Your task to perform on an android device: turn on improve location accuracy Image 0: 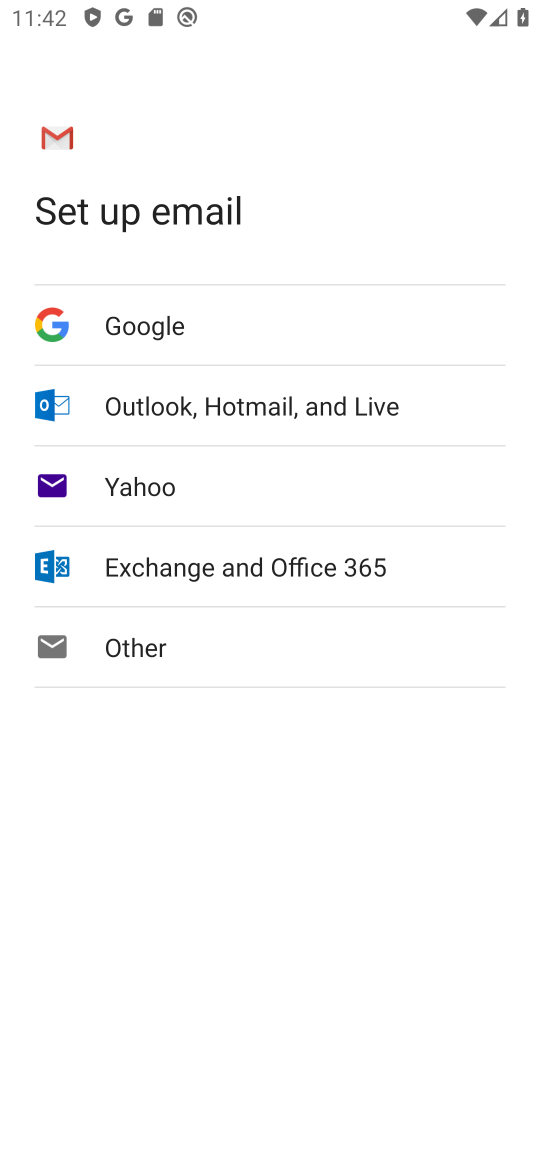
Step 0: press home button
Your task to perform on an android device: turn on improve location accuracy Image 1: 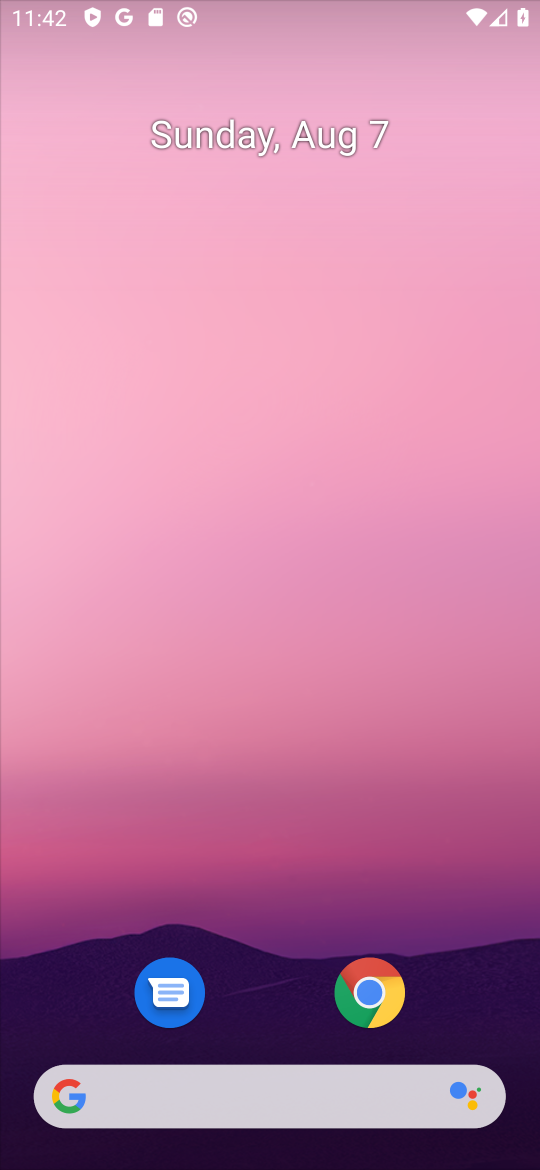
Step 1: drag from (274, 1006) to (202, 125)
Your task to perform on an android device: turn on improve location accuracy Image 2: 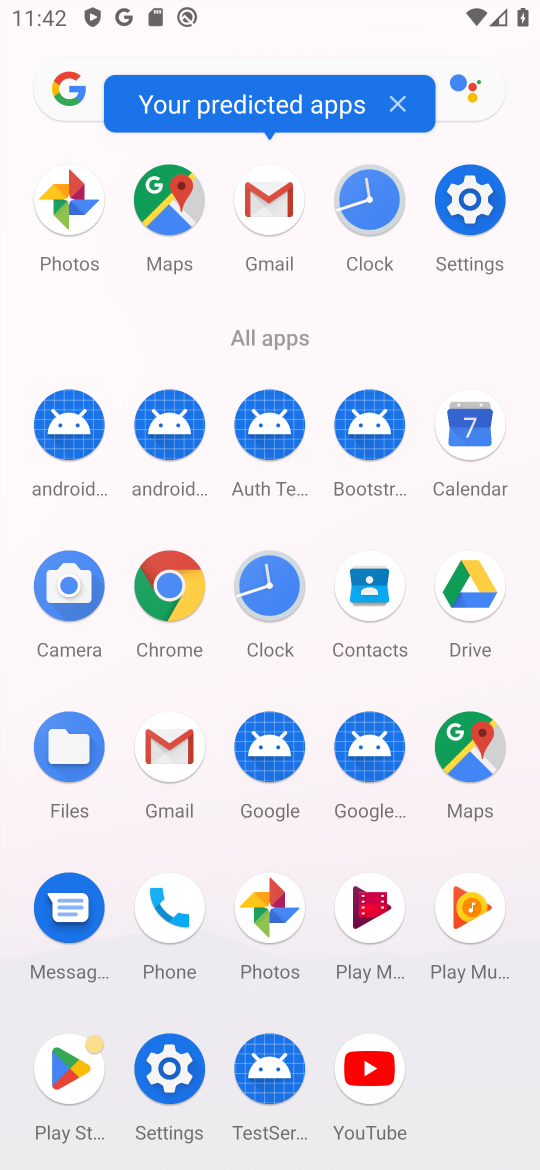
Step 2: click (468, 223)
Your task to perform on an android device: turn on improve location accuracy Image 3: 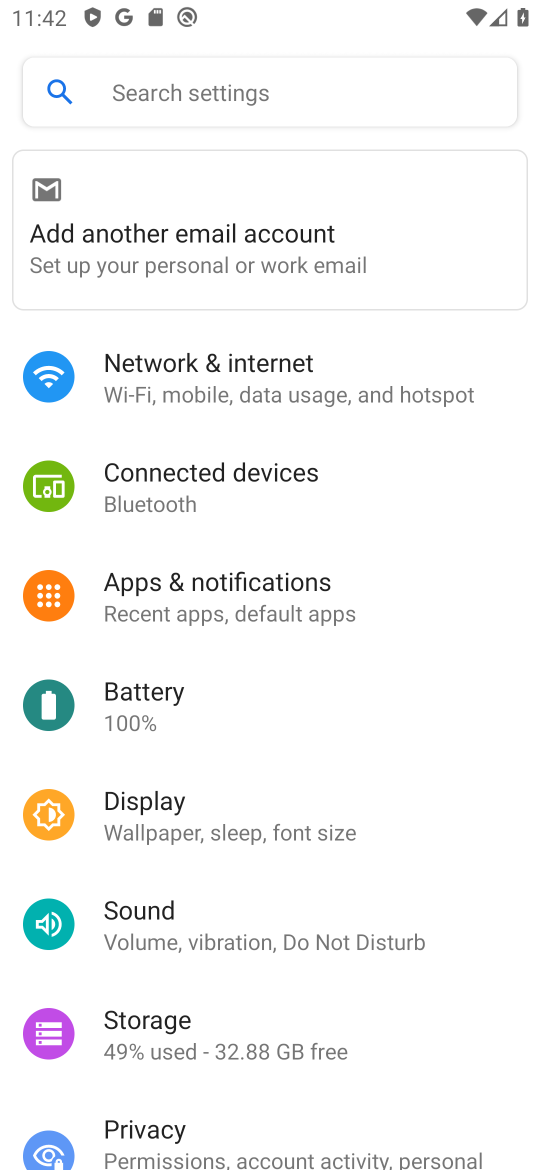
Step 3: drag from (359, 1064) to (474, 433)
Your task to perform on an android device: turn on improve location accuracy Image 4: 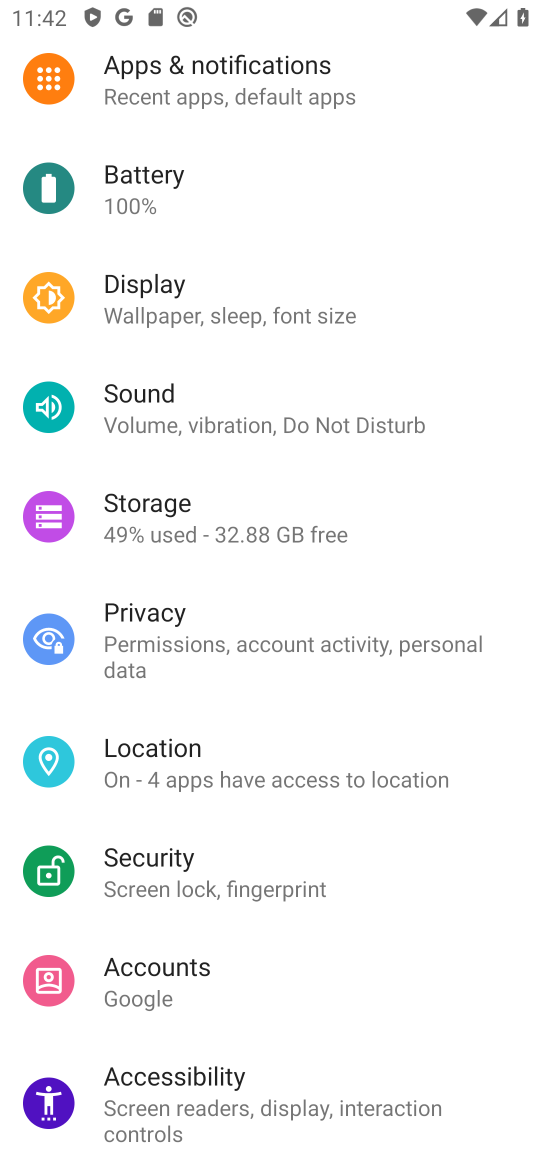
Step 4: click (185, 764)
Your task to perform on an android device: turn on improve location accuracy Image 5: 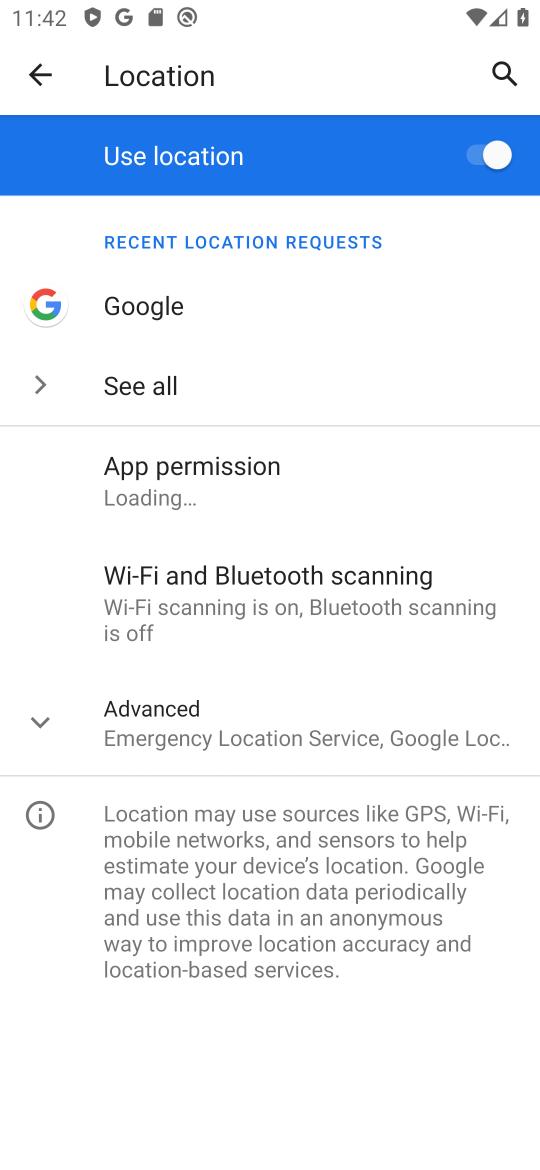
Step 5: click (203, 717)
Your task to perform on an android device: turn on improve location accuracy Image 6: 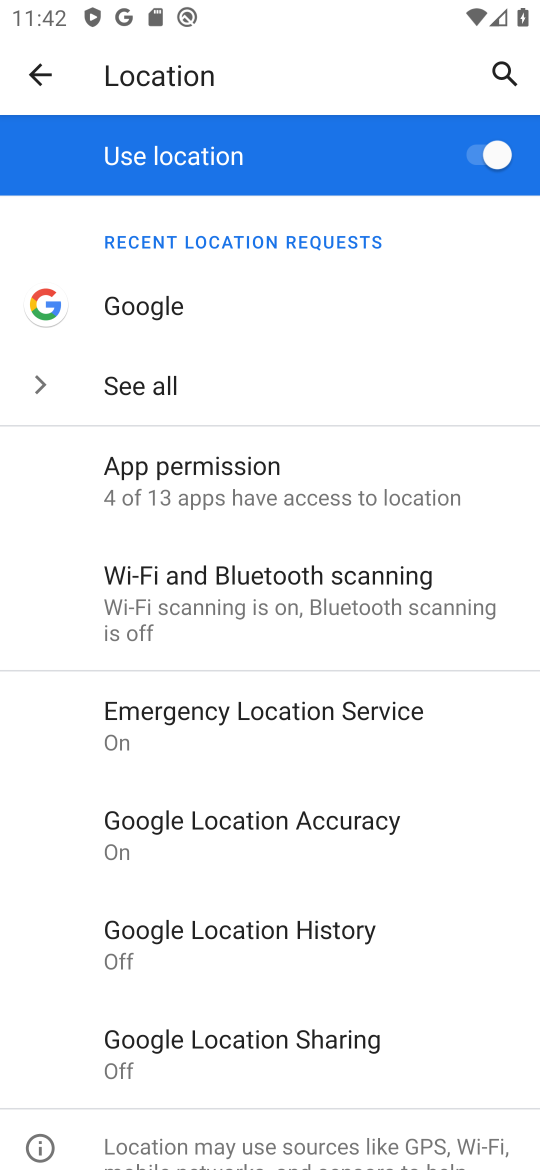
Step 6: click (286, 823)
Your task to perform on an android device: turn on improve location accuracy Image 7: 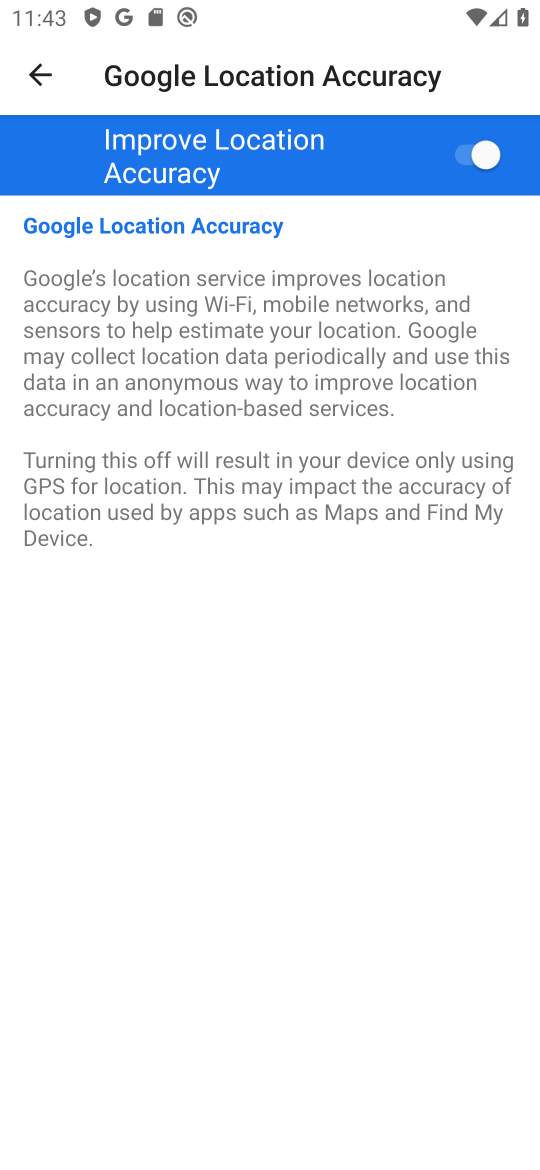
Step 7: task complete